Your task to perform on an android device: Open the map Image 0: 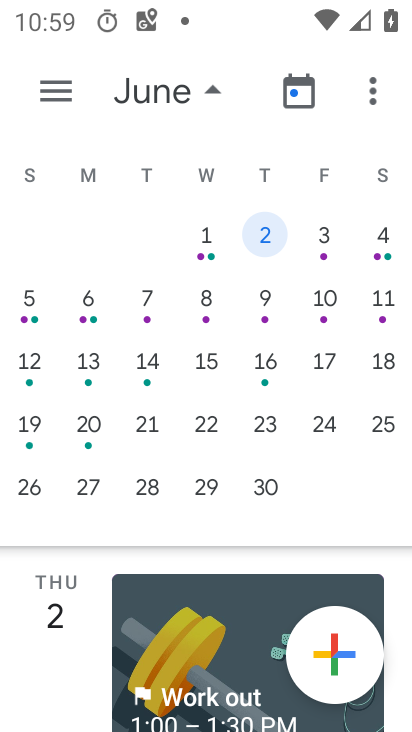
Step 0: press home button
Your task to perform on an android device: Open the map Image 1: 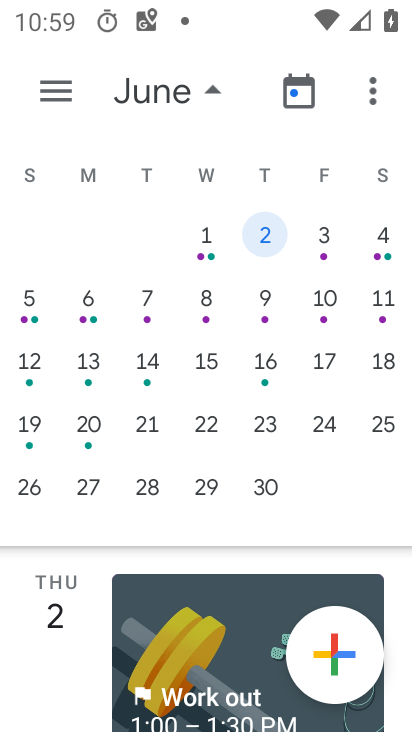
Step 1: press home button
Your task to perform on an android device: Open the map Image 2: 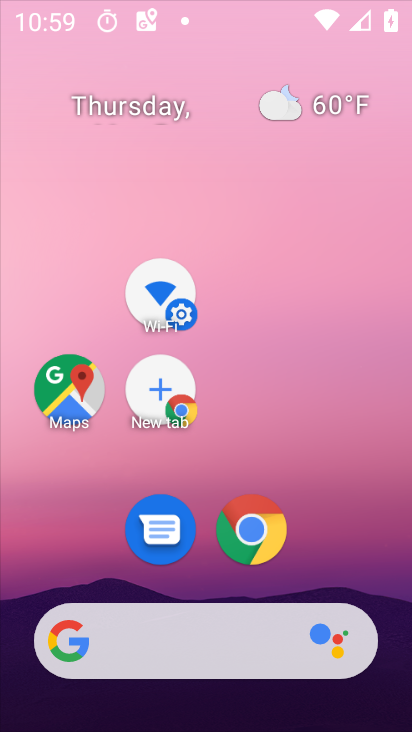
Step 2: press home button
Your task to perform on an android device: Open the map Image 3: 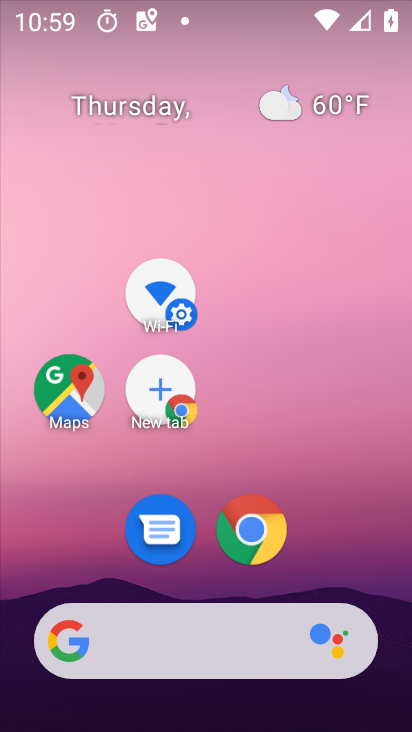
Step 3: click (86, 407)
Your task to perform on an android device: Open the map Image 4: 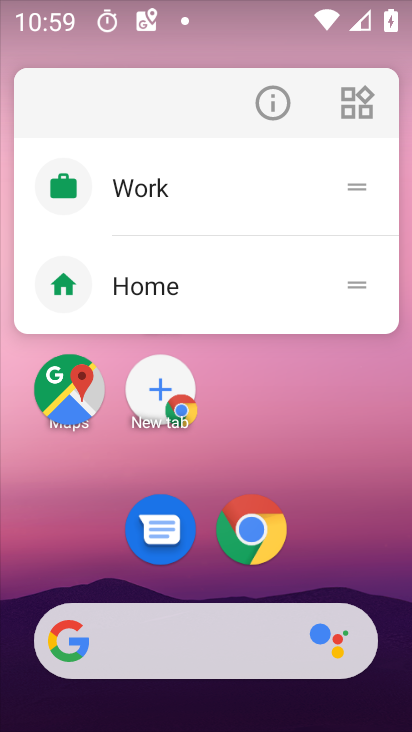
Step 4: click (86, 409)
Your task to perform on an android device: Open the map Image 5: 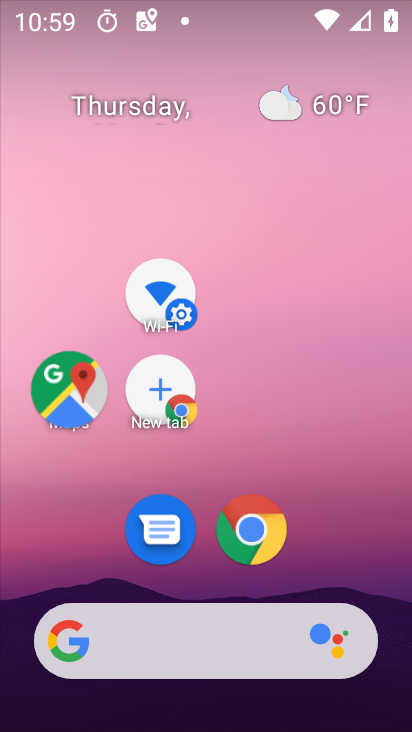
Step 5: click (85, 415)
Your task to perform on an android device: Open the map Image 6: 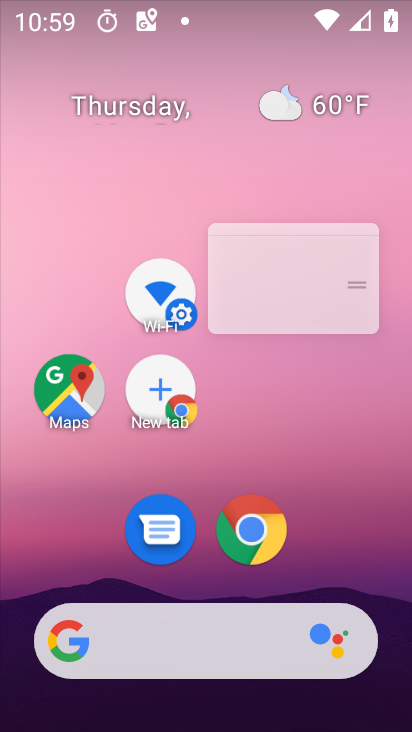
Step 6: click (80, 407)
Your task to perform on an android device: Open the map Image 7: 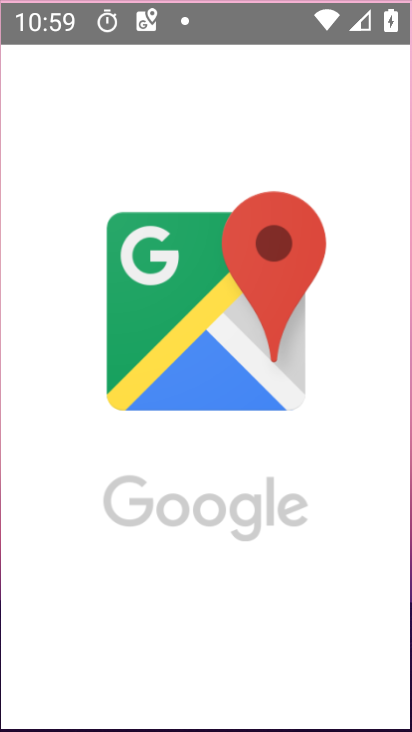
Step 7: click (87, 389)
Your task to perform on an android device: Open the map Image 8: 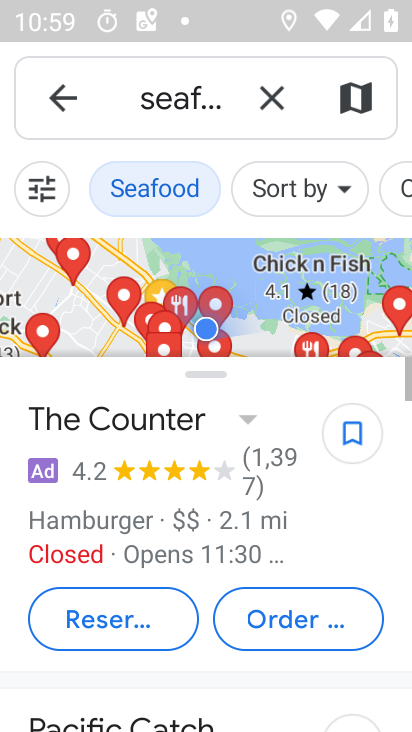
Step 8: task complete